Your task to perform on an android device: Go to ESPN.com Image 0: 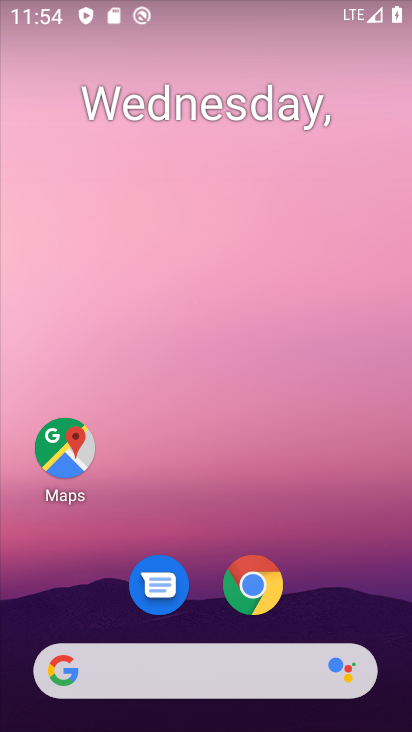
Step 0: click (253, 663)
Your task to perform on an android device: Go to ESPN.com Image 1: 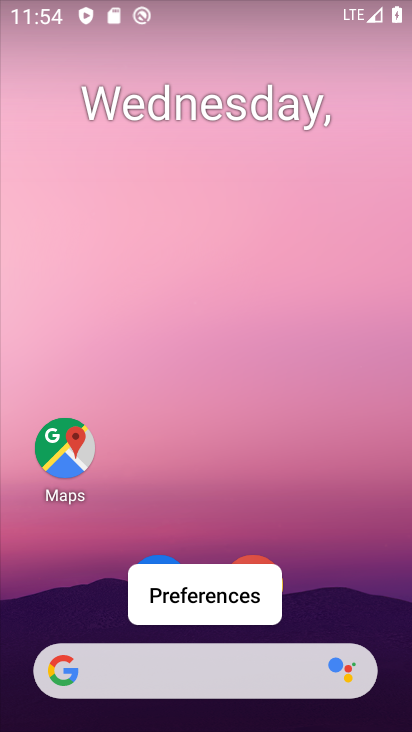
Step 1: click (262, 680)
Your task to perform on an android device: Go to ESPN.com Image 2: 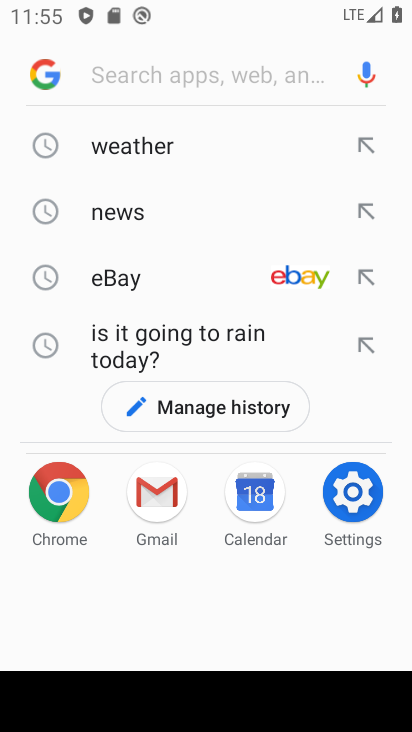
Step 2: type "espn.com"
Your task to perform on an android device: Go to ESPN.com Image 3: 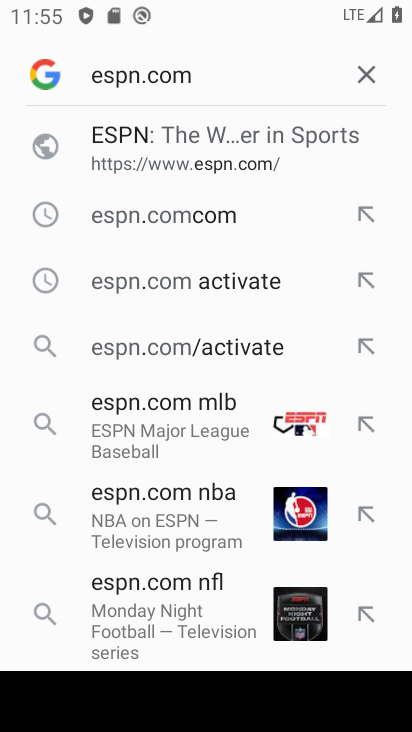
Step 3: click (156, 143)
Your task to perform on an android device: Go to ESPN.com Image 4: 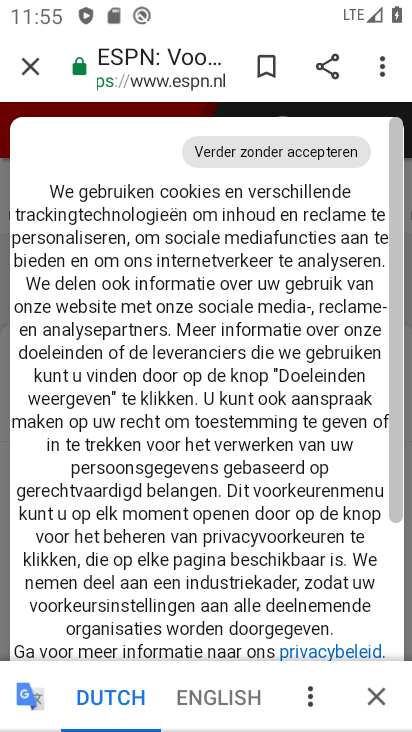
Step 4: task complete